Your task to perform on an android device: Open the calendar and show me this week's events? Image 0: 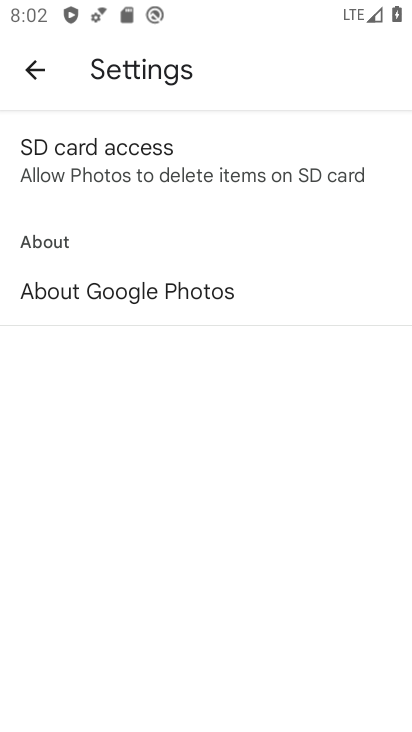
Step 0: press home button
Your task to perform on an android device: Open the calendar and show me this week's events? Image 1: 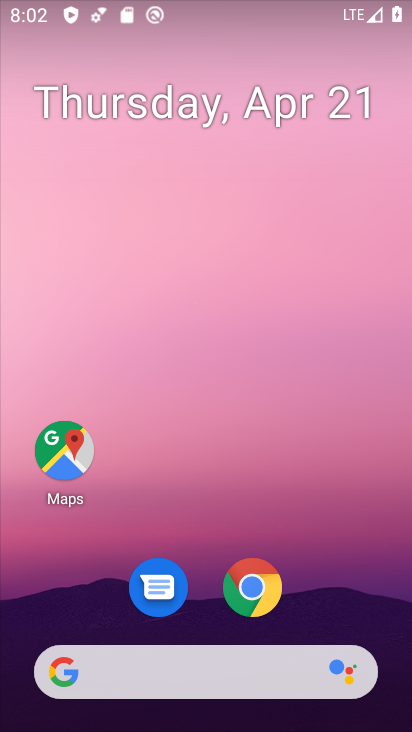
Step 1: drag from (374, 402) to (374, 110)
Your task to perform on an android device: Open the calendar and show me this week's events? Image 2: 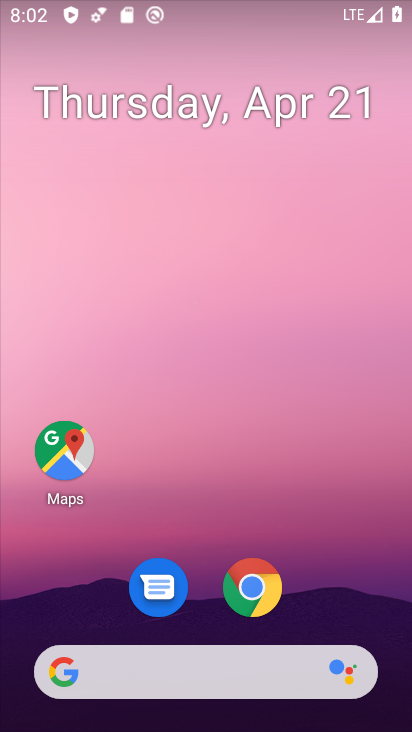
Step 2: drag from (389, 624) to (358, 239)
Your task to perform on an android device: Open the calendar and show me this week's events? Image 3: 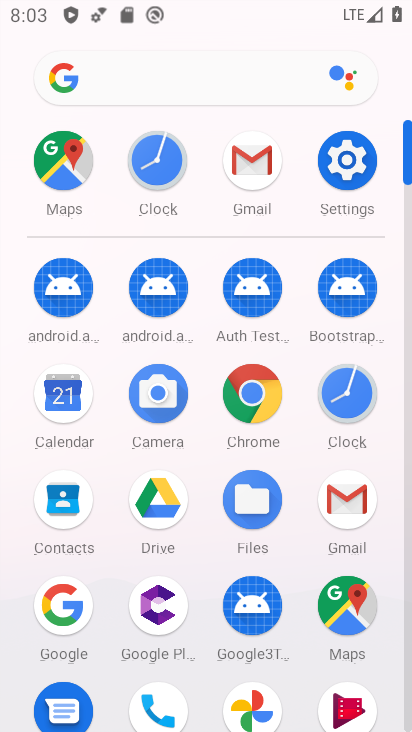
Step 3: click (63, 394)
Your task to perform on an android device: Open the calendar and show me this week's events? Image 4: 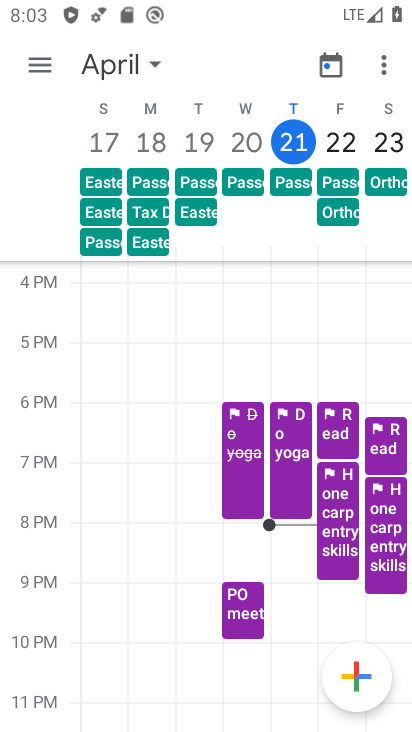
Step 4: task complete